Your task to perform on an android device: change the clock style Image 0: 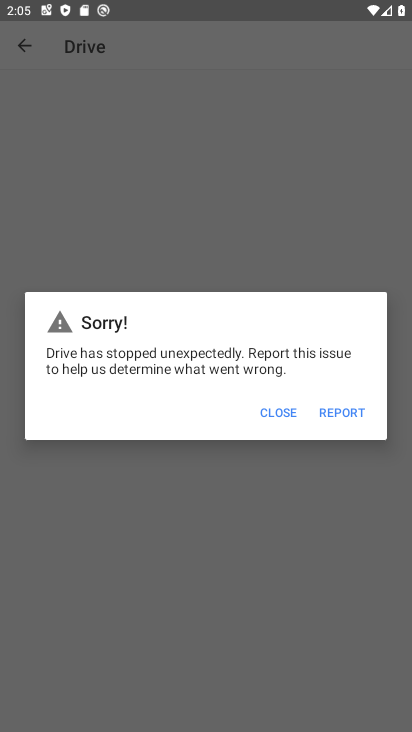
Step 0: press back button
Your task to perform on an android device: change the clock style Image 1: 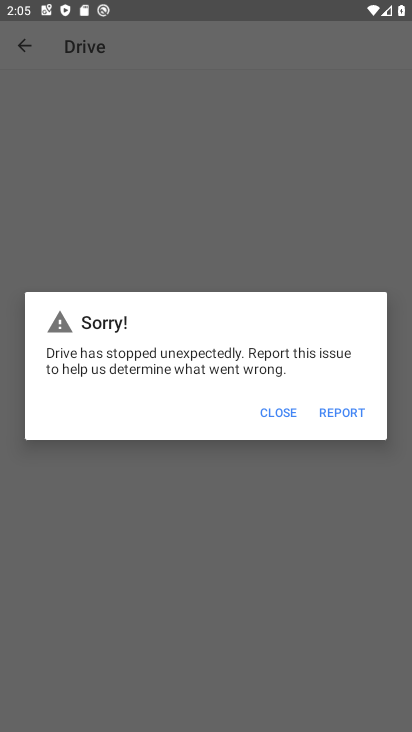
Step 1: press home button
Your task to perform on an android device: change the clock style Image 2: 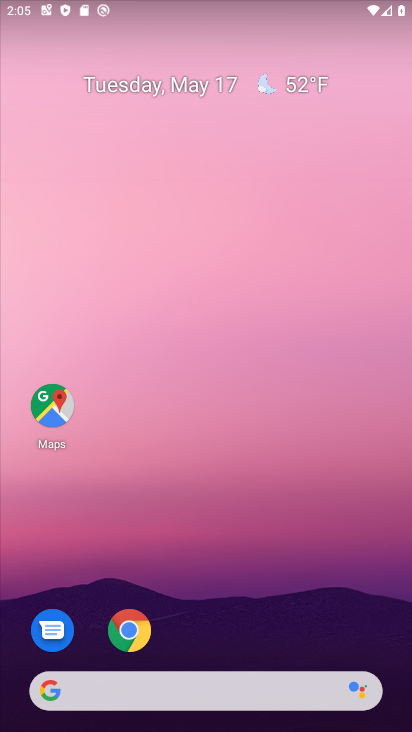
Step 2: drag from (322, 64) to (332, 8)
Your task to perform on an android device: change the clock style Image 3: 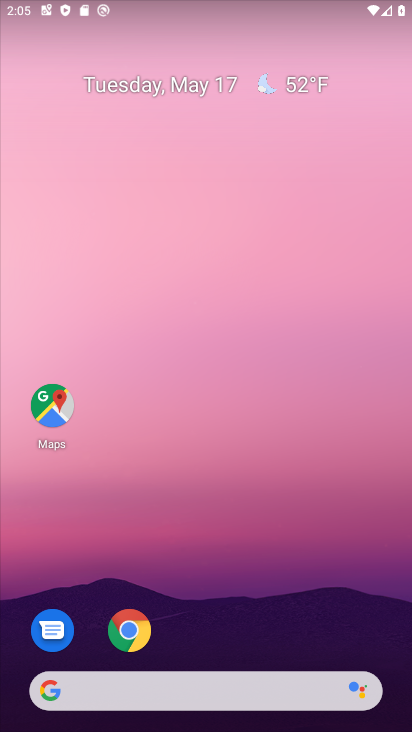
Step 3: drag from (210, 536) to (255, 146)
Your task to perform on an android device: change the clock style Image 4: 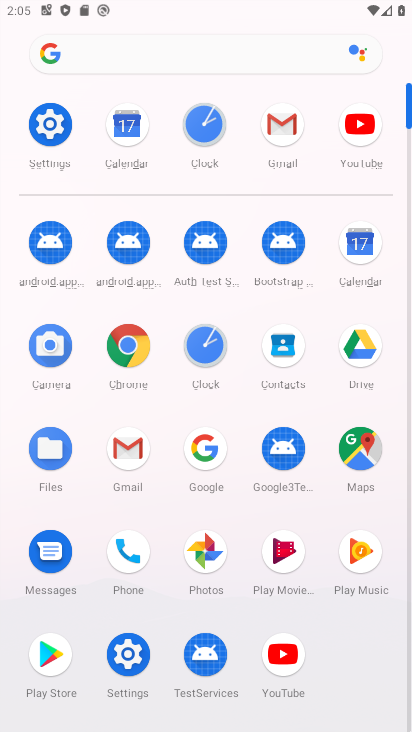
Step 4: click (195, 119)
Your task to perform on an android device: change the clock style Image 5: 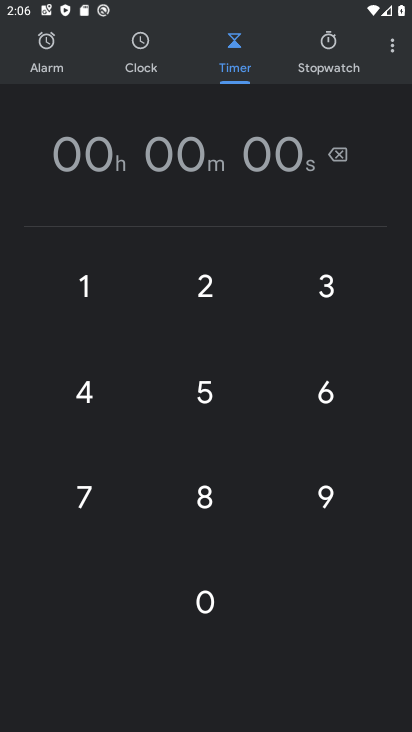
Step 5: click (392, 44)
Your task to perform on an android device: change the clock style Image 6: 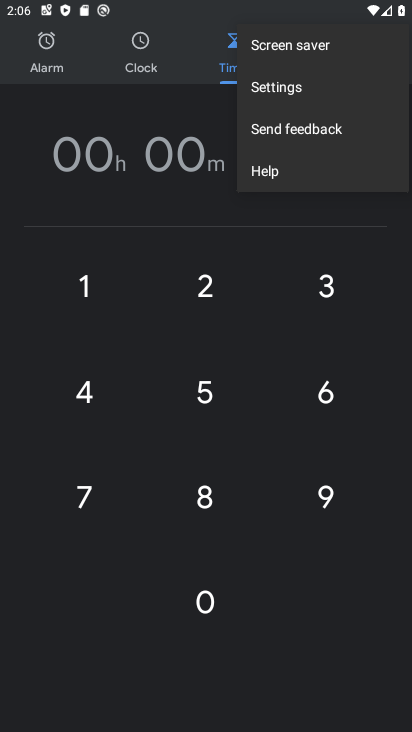
Step 6: click (319, 101)
Your task to perform on an android device: change the clock style Image 7: 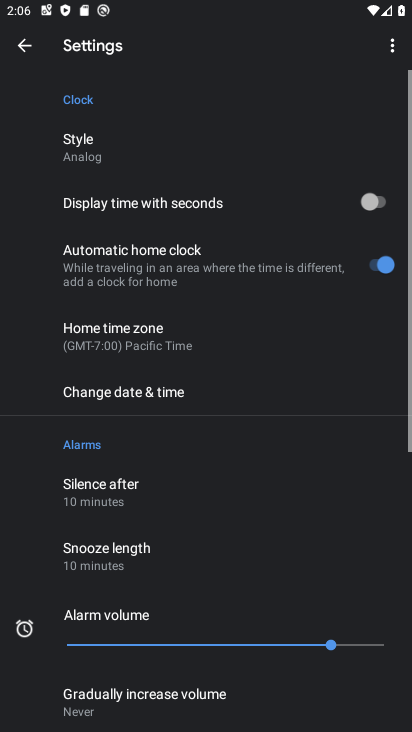
Step 7: click (141, 149)
Your task to perform on an android device: change the clock style Image 8: 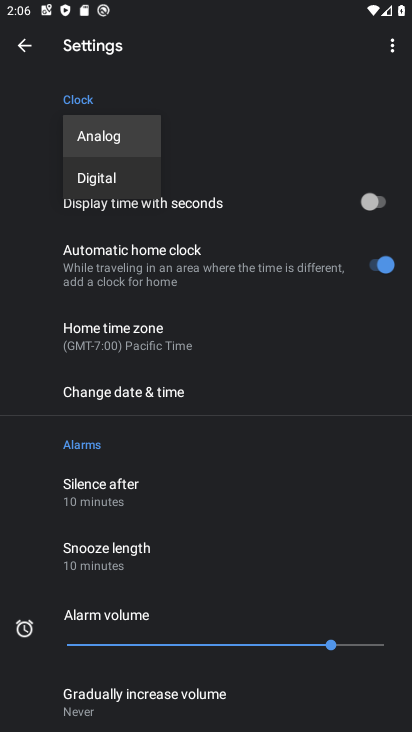
Step 8: click (97, 177)
Your task to perform on an android device: change the clock style Image 9: 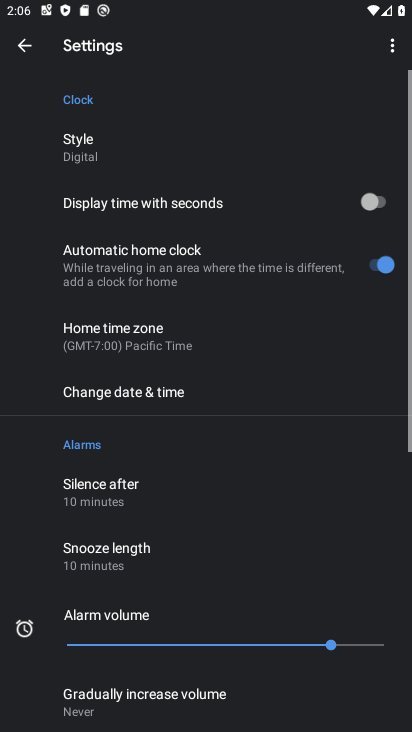
Step 9: task complete